Your task to perform on an android device: Open maps Image 0: 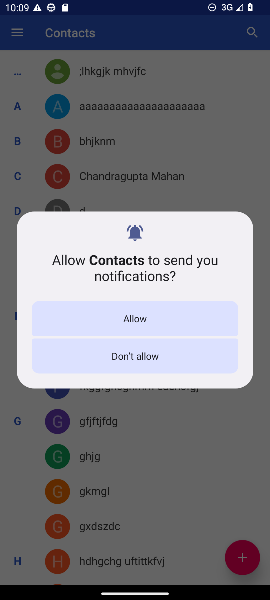
Step 0: press home button
Your task to perform on an android device: Open maps Image 1: 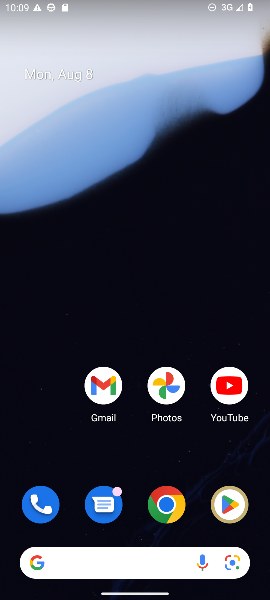
Step 1: drag from (127, 528) to (89, 1)
Your task to perform on an android device: Open maps Image 2: 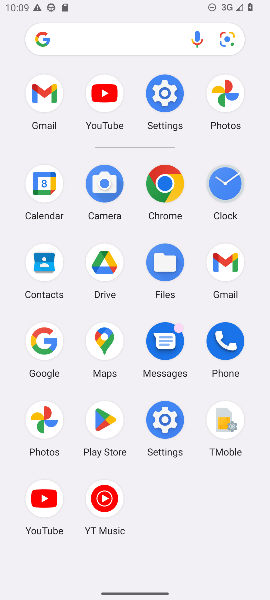
Step 2: click (107, 335)
Your task to perform on an android device: Open maps Image 3: 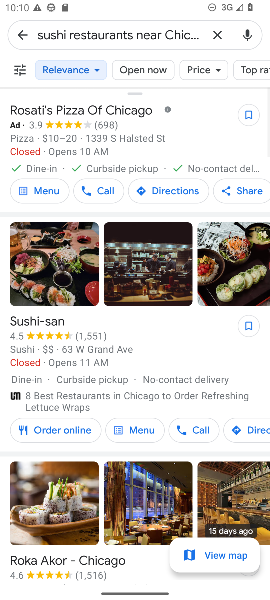
Step 3: task complete